Your task to perform on an android device: Go to Reddit.com Image 0: 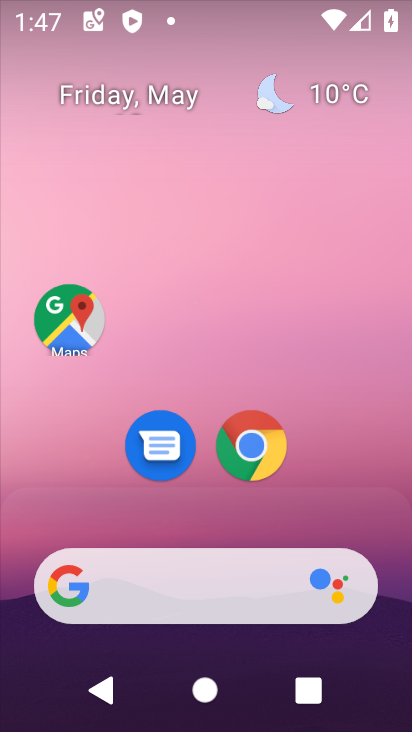
Step 0: drag from (204, 547) to (214, 172)
Your task to perform on an android device: Go to Reddit.com Image 1: 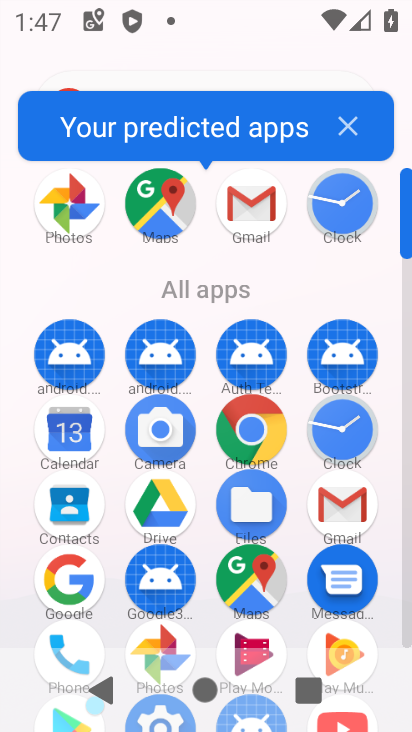
Step 1: click (67, 204)
Your task to perform on an android device: Go to Reddit.com Image 2: 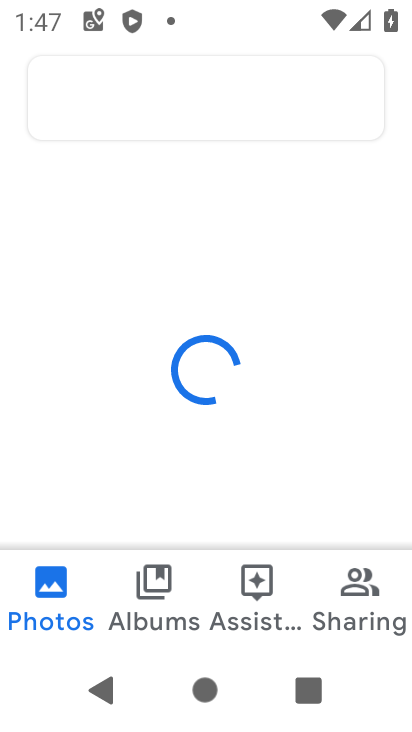
Step 2: press home button
Your task to perform on an android device: Go to Reddit.com Image 3: 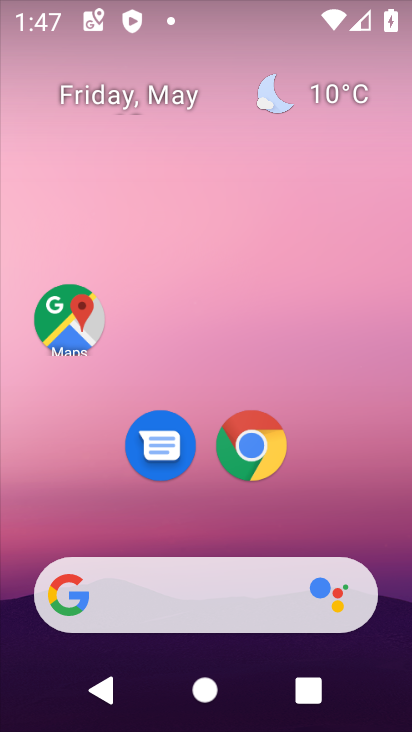
Step 3: drag from (182, 555) to (261, 259)
Your task to perform on an android device: Go to Reddit.com Image 4: 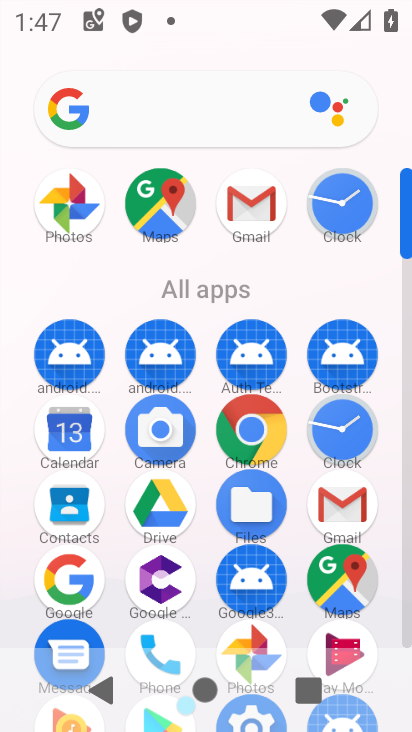
Step 4: click (69, 569)
Your task to perform on an android device: Go to Reddit.com Image 5: 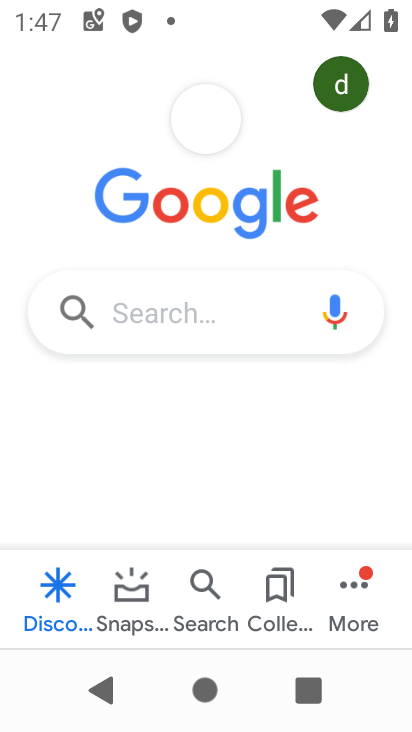
Step 5: click (86, 315)
Your task to perform on an android device: Go to Reddit.com Image 6: 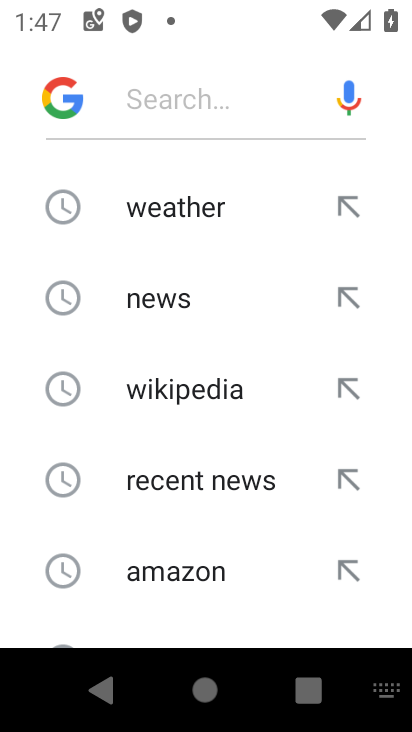
Step 6: drag from (191, 559) to (221, 206)
Your task to perform on an android device: Go to Reddit.com Image 7: 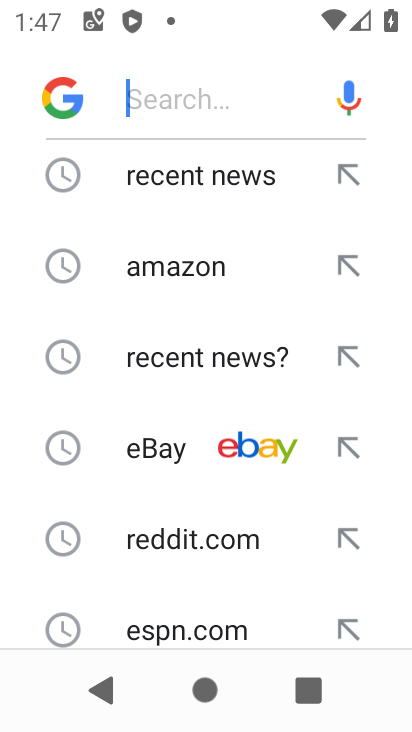
Step 7: click (183, 541)
Your task to perform on an android device: Go to Reddit.com Image 8: 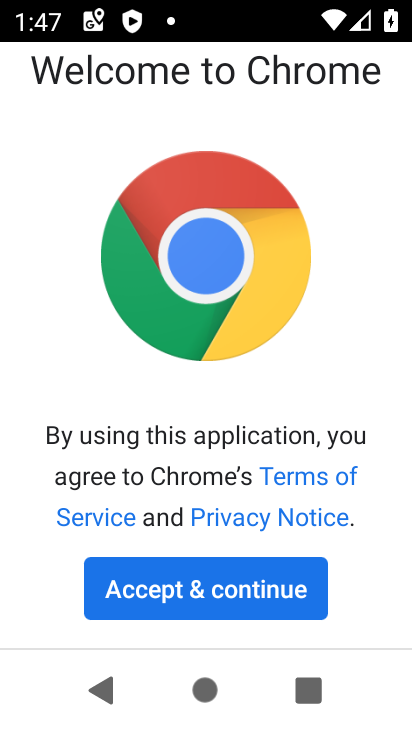
Step 8: click (263, 572)
Your task to perform on an android device: Go to Reddit.com Image 9: 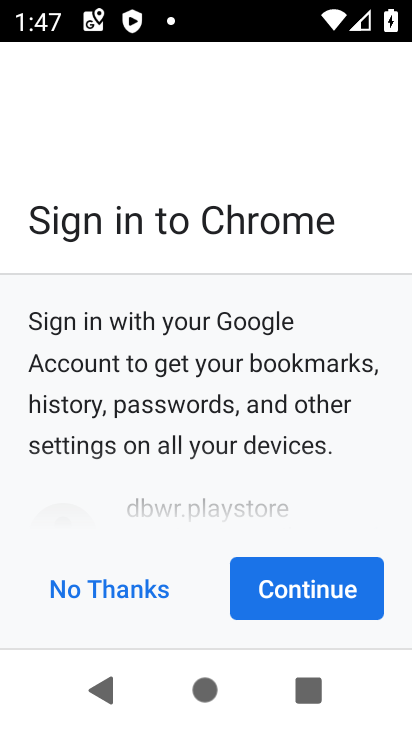
Step 9: click (343, 580)
Your task to perform on an android device: Go to Reddit.com Image 10: 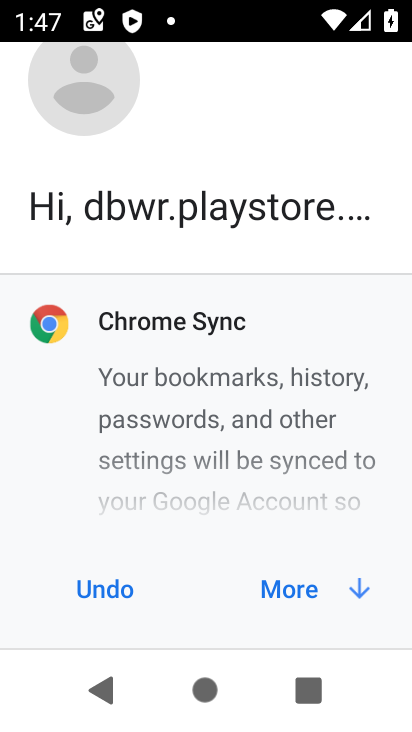
Step 10: click (292, 594)
Your task to perform on an android device: Go to Reddit.com Image 11: 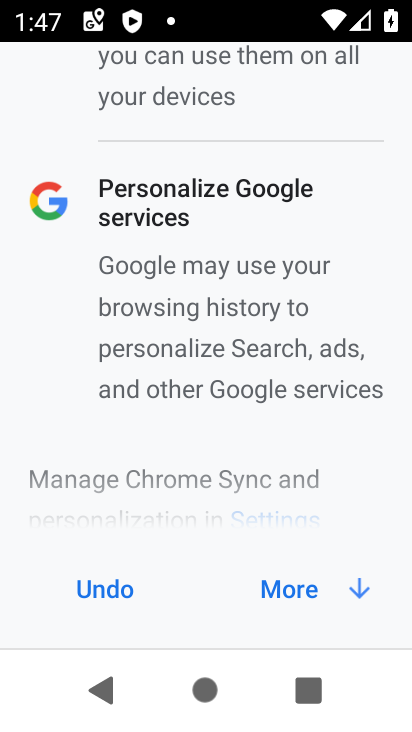
Step 11: click (292, 594)
Your task to perform on an android device: Go to Reddit.com Image 12: 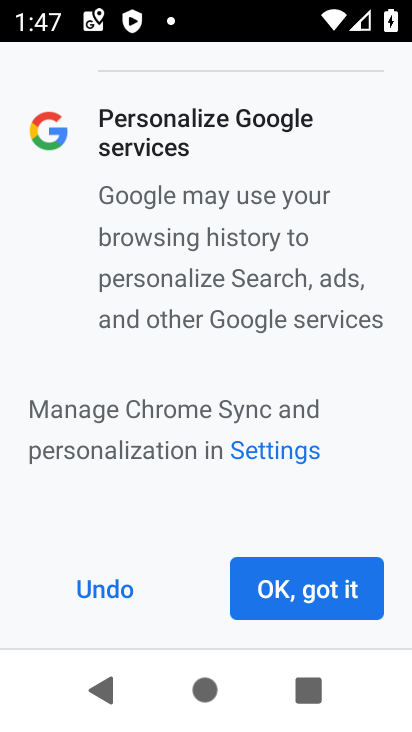
Step 12: click (292, 594)
Your task to perform on an android device: Go to Reddit.com Image 13: 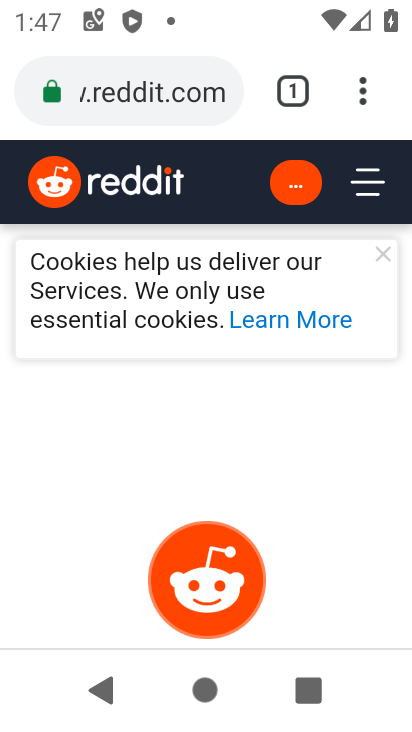
Step 13: task complete